Your task to perform on an android device: Search for the new Nike Air Jordan 33 on Nike.com Image 0: 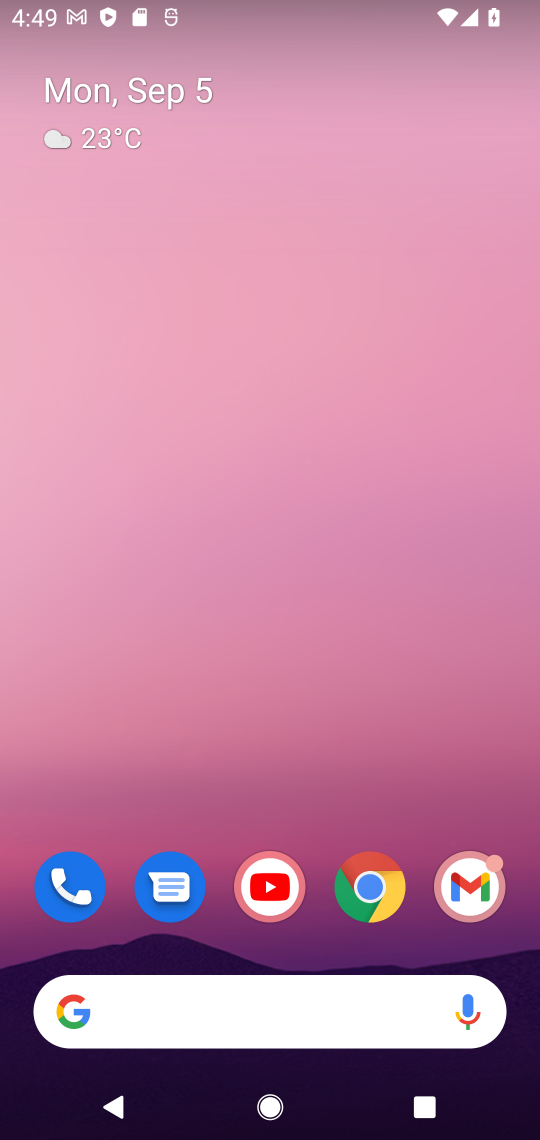
Step 0: drag from (266, 671) to (307, 431)
Your task to perform on an android device: Search for the new Nike Air Jordan 33 on Nike.com Image 1: 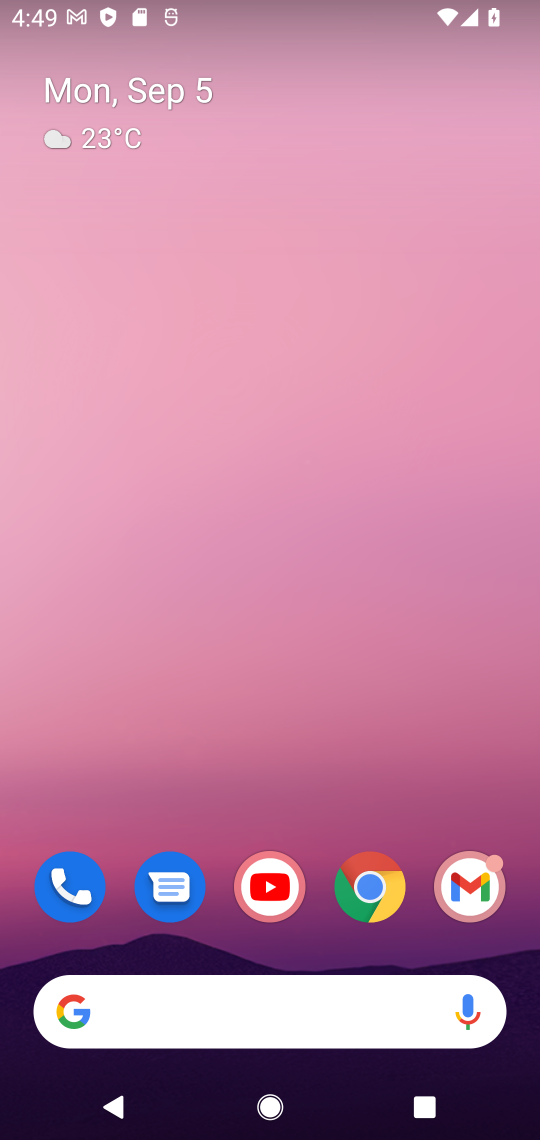
Step 1: drag from (317, 976) to (351, 426)
Your task to perform on an android device: Search for the new Nike Air Jordan 33 on Nike.com Image 2: 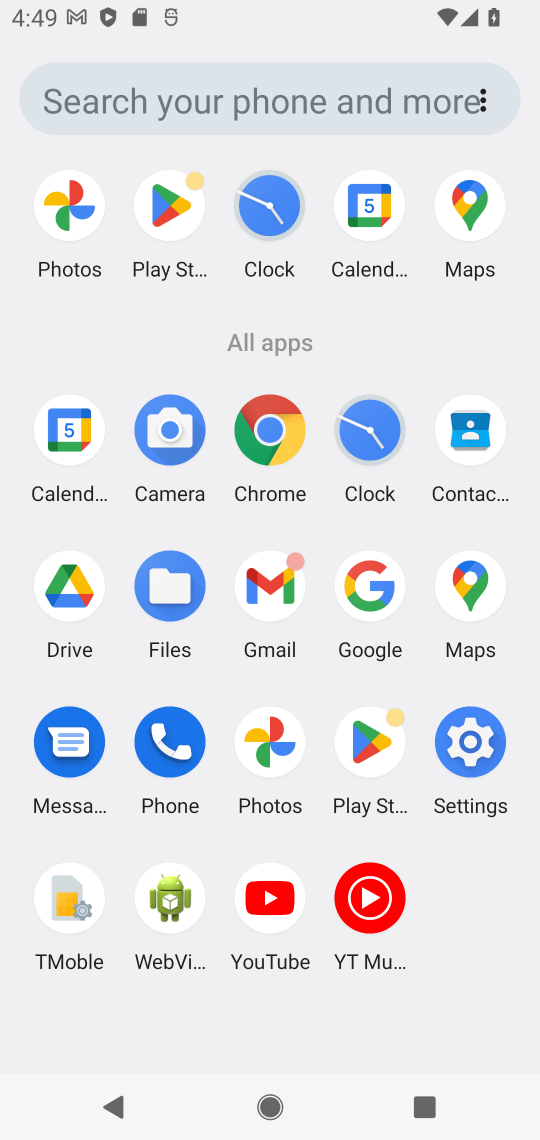
Step 2: click (372, 594)
Your task to perform on an android device: Search for the new Nike Air Jordan 33 on Nike.com Image 3: 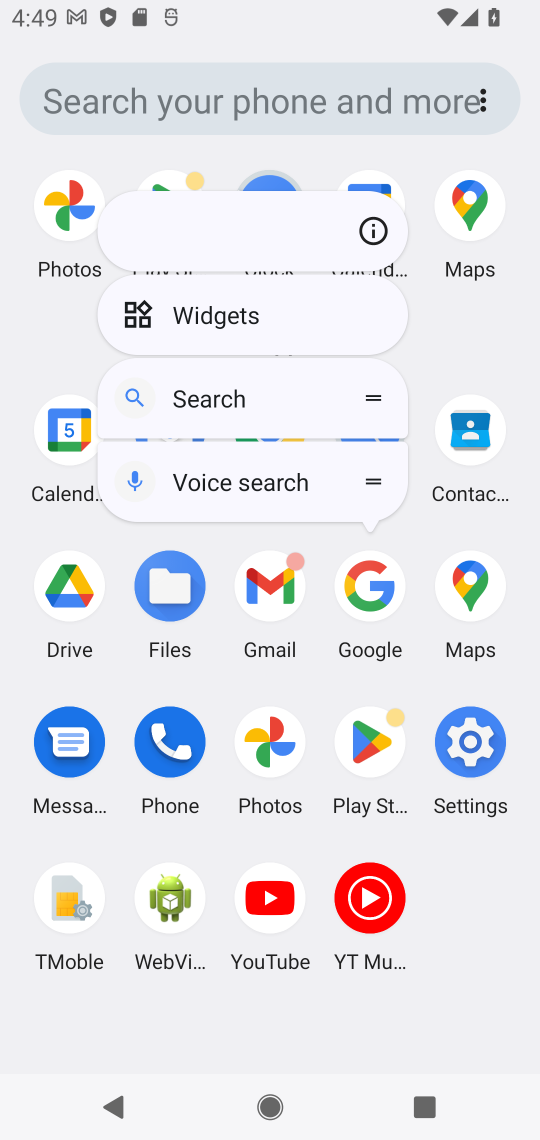
Step 3: click (361, 577)
Your task to perform on an android device: Search for the new Nike Air Jordan 33 on Nike.com Image 4: 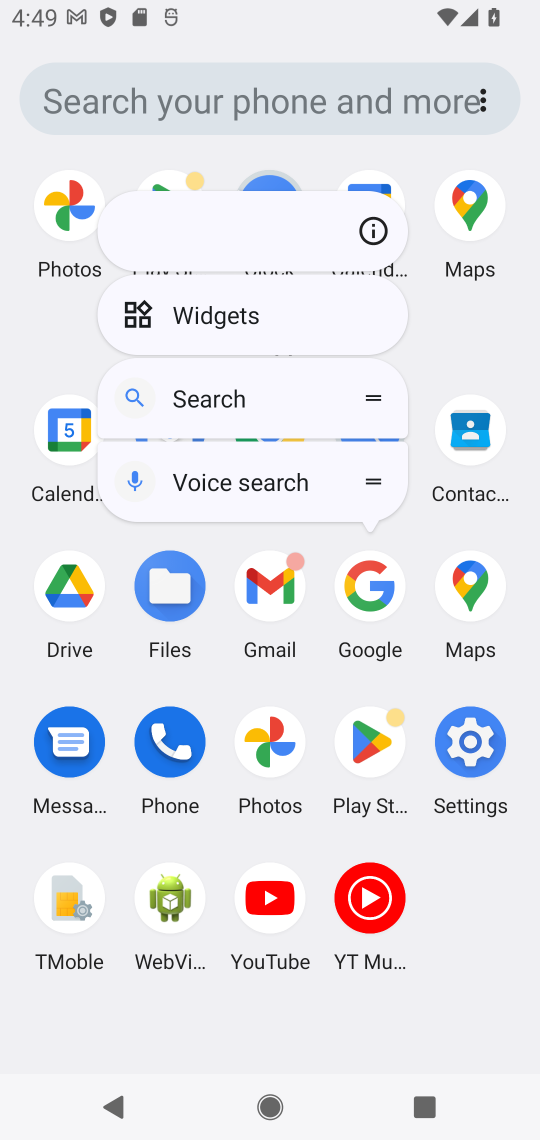
Step 4: click (372, 588)
Your task to perform on an android device: Search for the new Nike Air Jordan 33 on Nike.com Image 5: 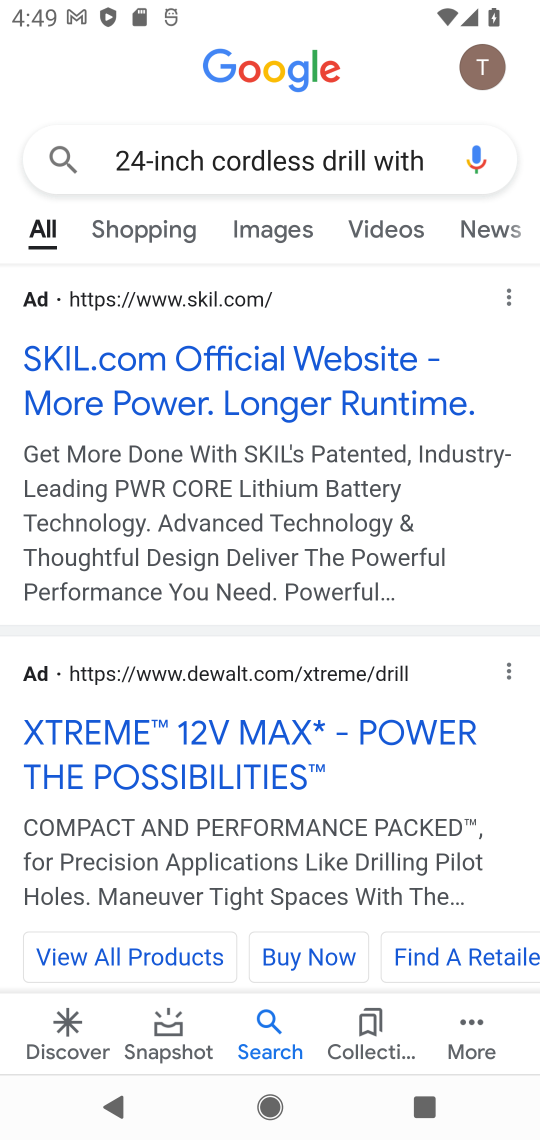
Step 5: click (265, 168)
Your task to perform on an android device: Search for the new Nike Air Jordan 33 on Nike.com Image 6: 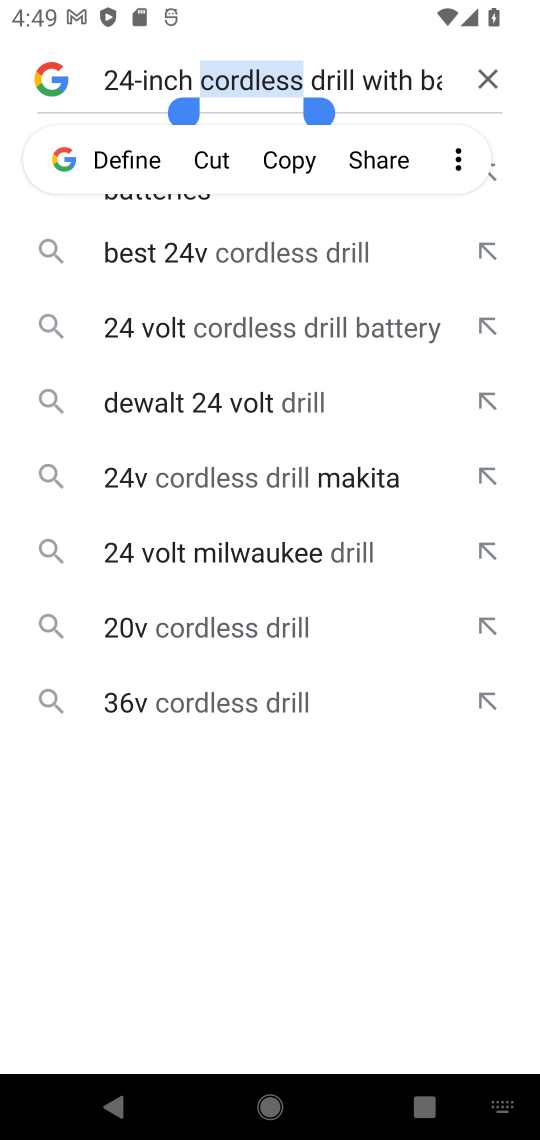
Step 6: click (488, 84)
Your task to perform on an android device: Search for the new Nike Air Jordan 33 on Nike.com Image 7: 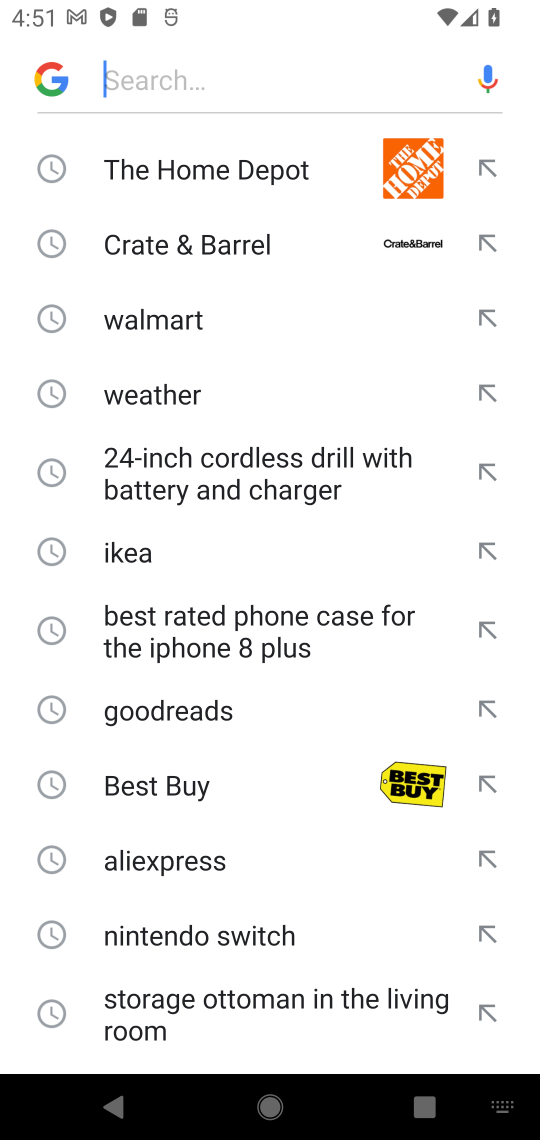
Step 7: type "Nike.com"
Your task to perform on an android device: Search for the new Nike Air Jordan 33 on Nike.com Image 8: 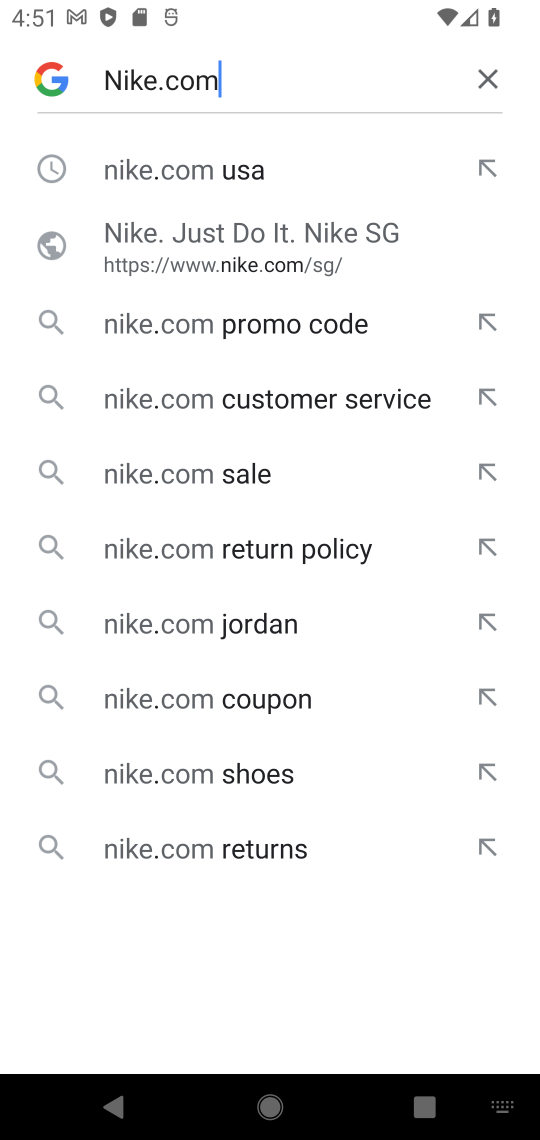
Step 8: click (190, 244)
Your task to perform on an android device: Search for the new Nike Air Jordan 33 on Nike.com Image 9: 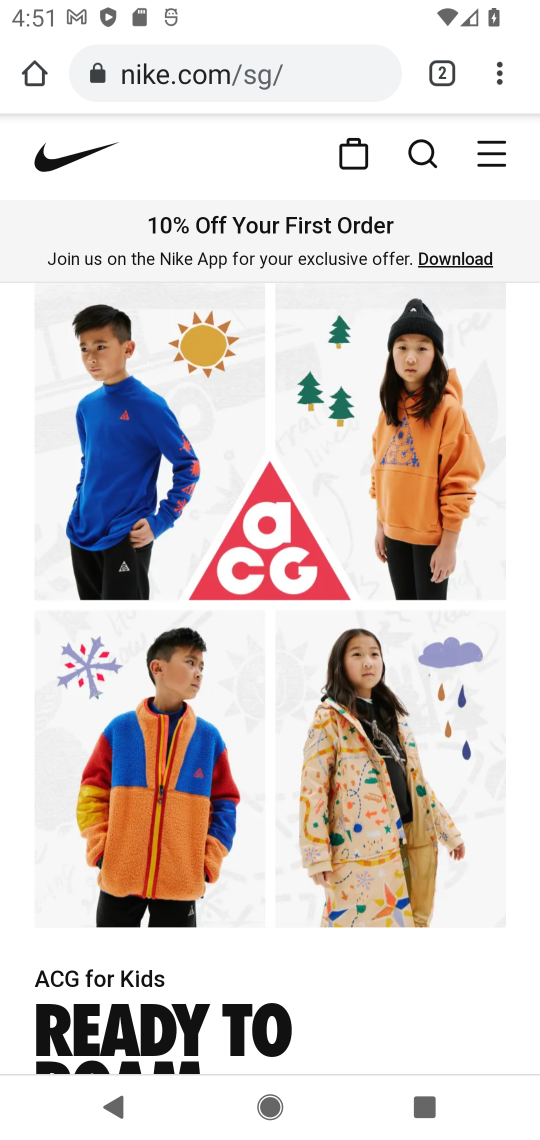
Step 9: click (416, 155)
Your task to perform on an android device: Search for the new Nike Air Jordan 33 on Nike.com Image 10: 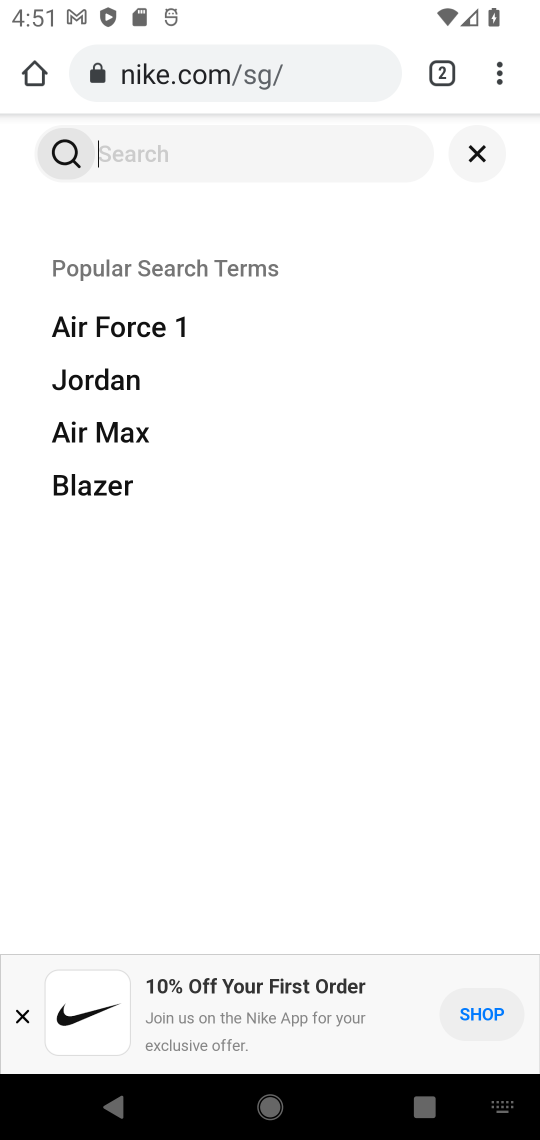
Step 10: type "Nike Air Jordan 33"
Your task to perform on an android device: Search for the new Nike Air Jordan 33 on Nike.com Image 11: 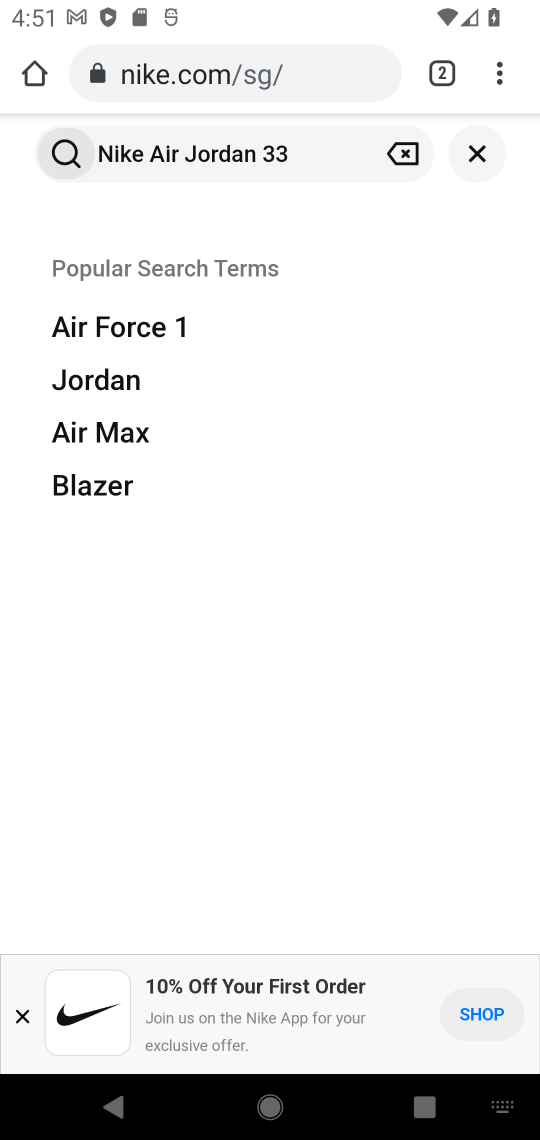
Step 11: click (145, 377)
Your task to perform on an android device: Search for the new Nike Air Jordan 33 on Nike.com Image 12: 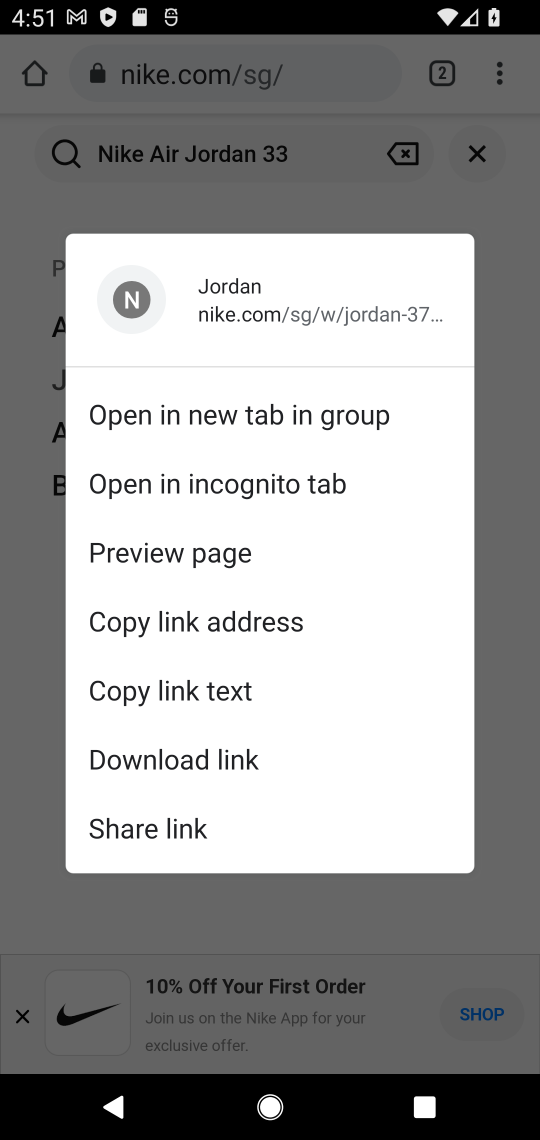
Step 12: click (26, 238)
Your task to perform on an android device: Search for the new Nike Air Jordan 33 on Nike.com Image 13: 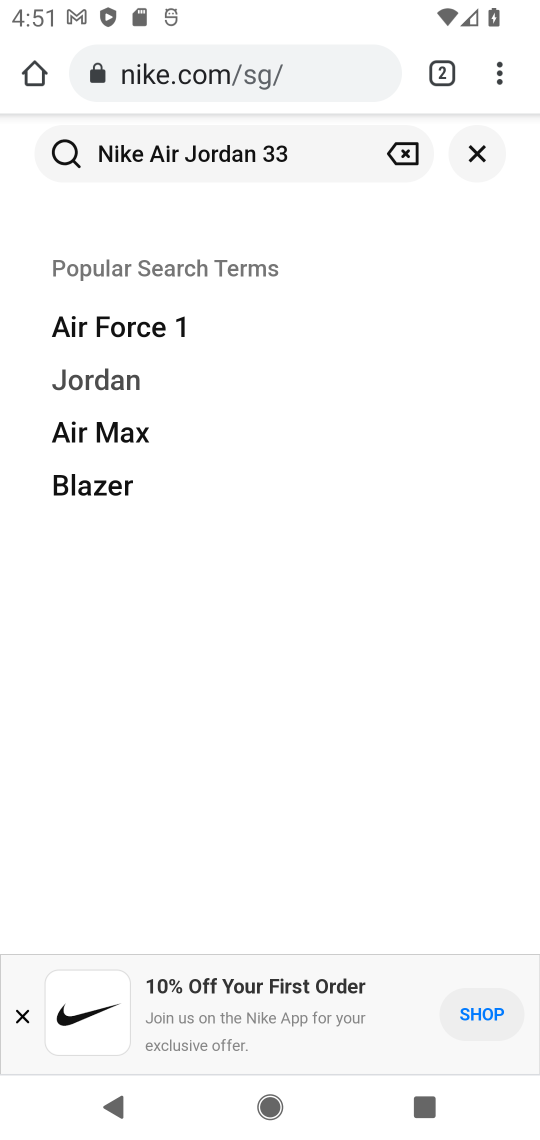
Step 13: click (100, 367)
Your task to perform on an android device: Search for the new Nike Air Jordan 33 on Nike.com Image 14: 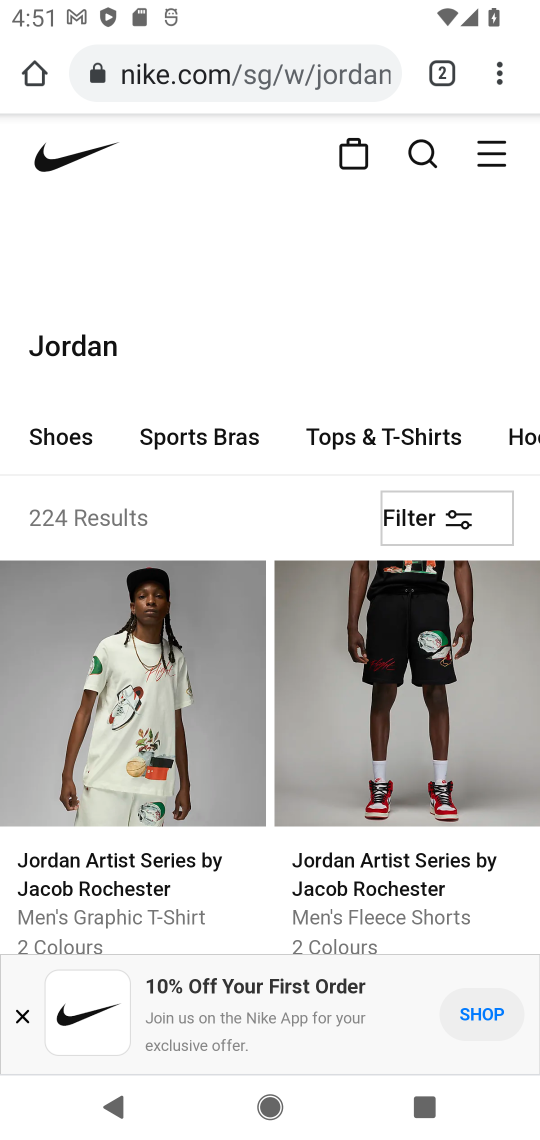
Step 14: task complete